Your task to perform on an android device: Go to privacy settings Image 0: 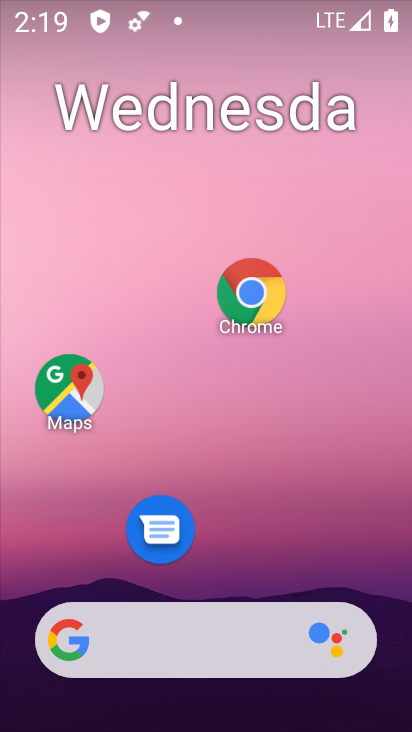
Step 0: drag from (272, 543) to (299, 285)
Your task to perform on an android device: Go to privacy settings Image 1: 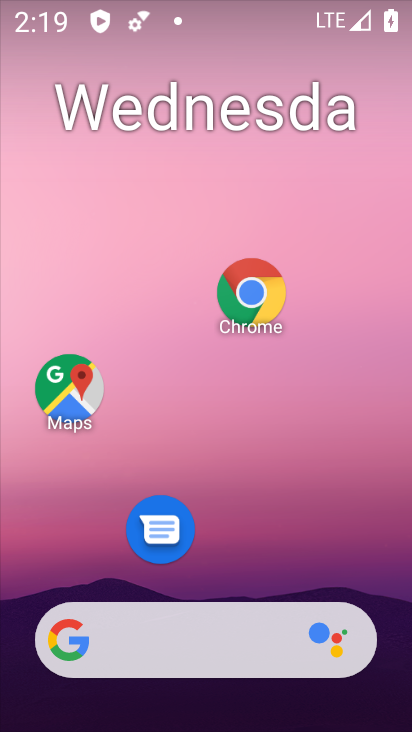
Step 1: drag from (191, 548) to (188, 327)
Your task to perform on an android device: Go to privacy settings Image 2: 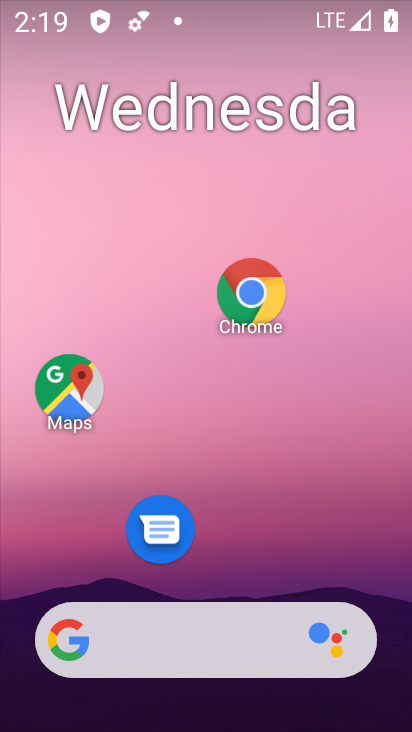
Step 2: drag from (230, 532) to (247, 332)
Your task to perform on an android device: Go to privacy settings Image 3: 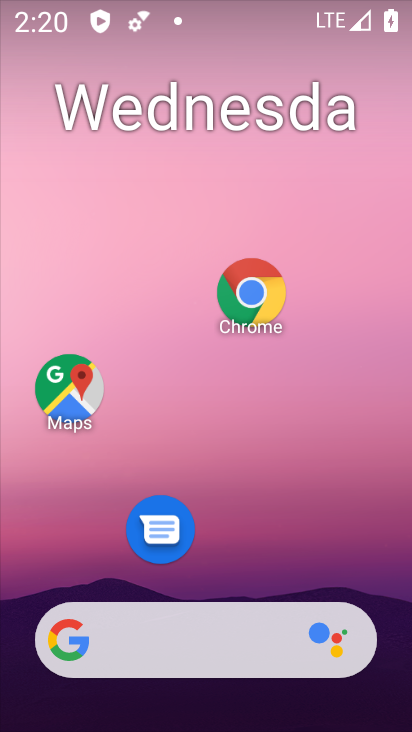
Step 3: drag from (297, 615) to (315, 335)
Your task to perform on an android device: Go to privacy settings Image 4: 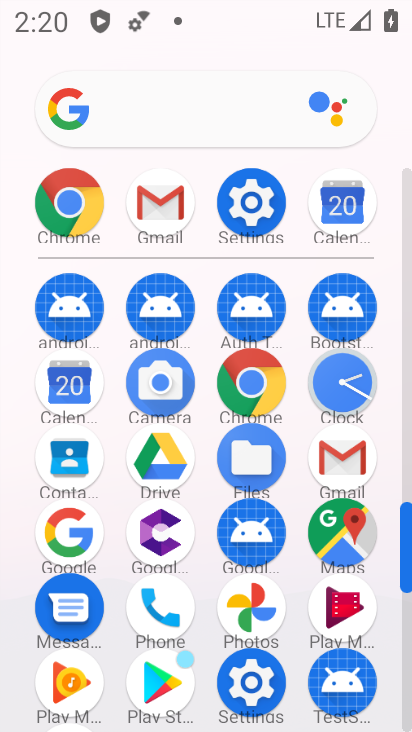
Step 4: click (273, 225)
Your task to perform on an android device: Go to privacy settings Image 5: 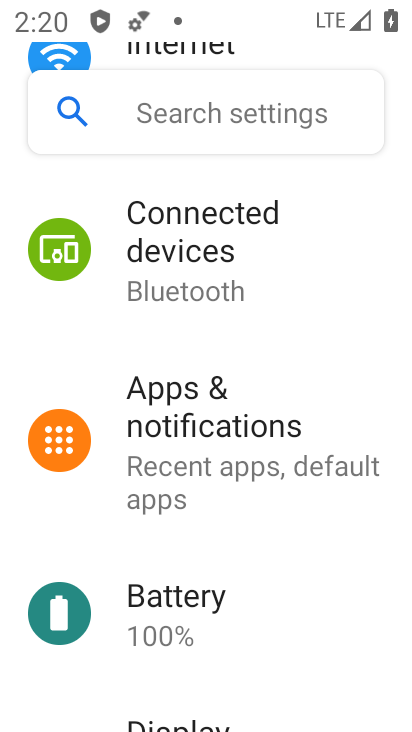
Step 5: drag from (204, 483) to (198, 285)
Your task to perform on an android device: Go to privacy settings Image 6: 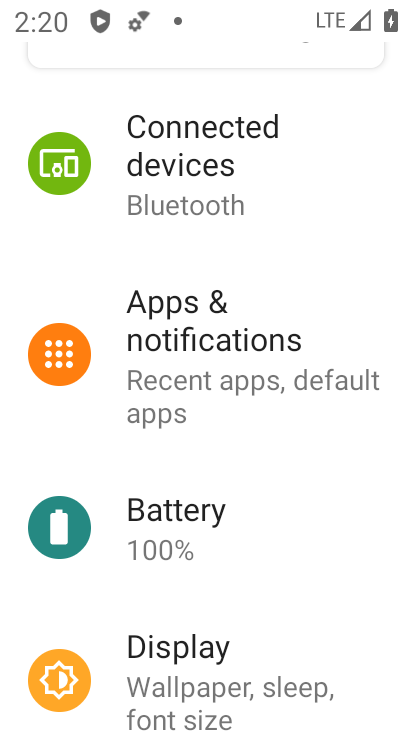
Step 6: drag from (197, 431) to (199, 334)
Your task to perform on an android device: Go to privacy settings Image 7: 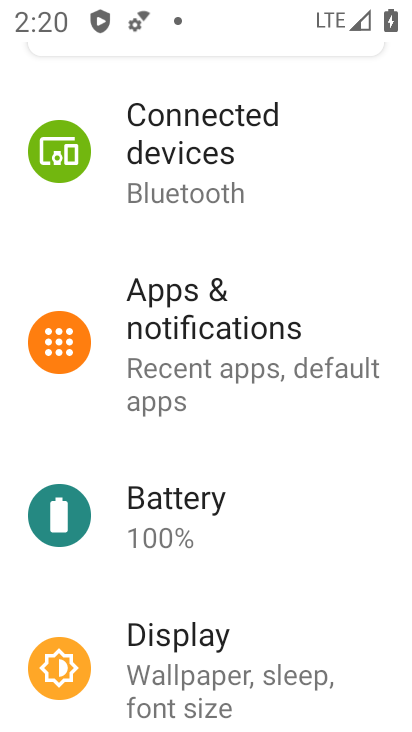
Step 7: drag from (189, 567) to (214, 229)
Your task to perform on an android device: Go to privacy settings Image 8: 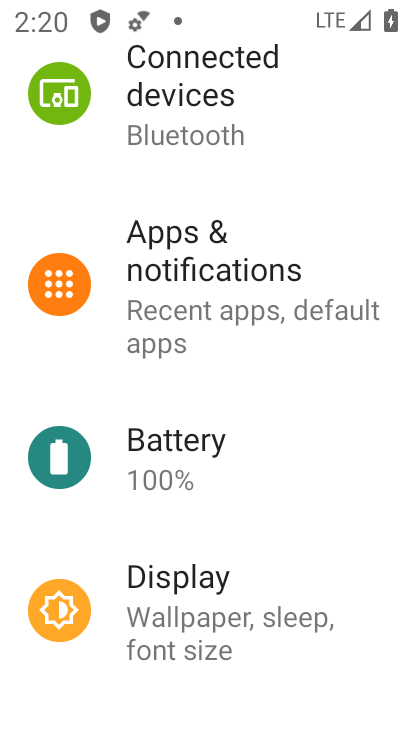
Step 8: drag from (198, 505) to (263, 97)
Your task to perform on an android device: Go to privacy settings Image 9: 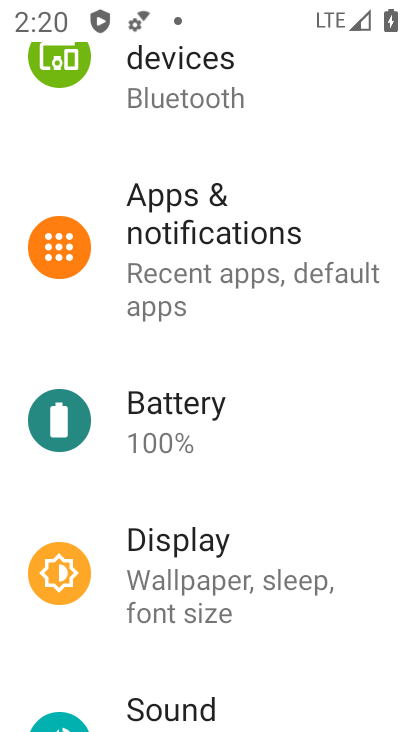
Step 9: drag from (177, 594) to (212, 216)
Your task to perform on an android device: Go to privacy settings Image 10: 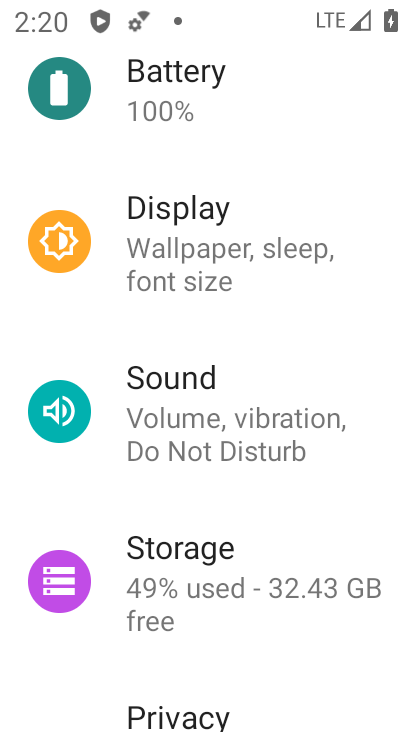
Step 10: drag from (192, 494) to (239, 4)
Your task to perform on an android device: Go to privacy settings Image 11: 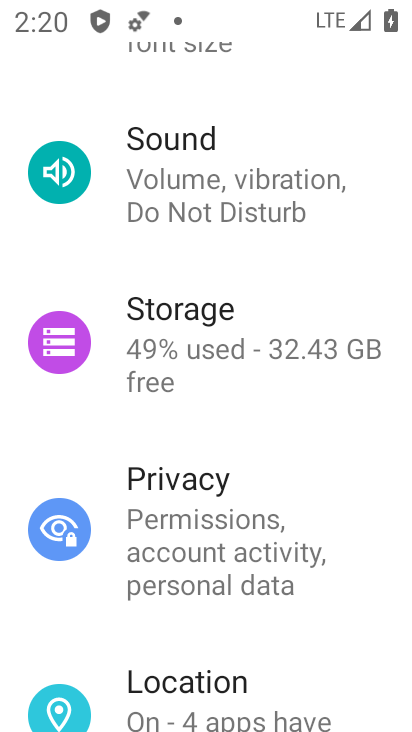
Step 11: click (226, 472)
Your task to perform on an android device: Go to privacy settings Image 12: 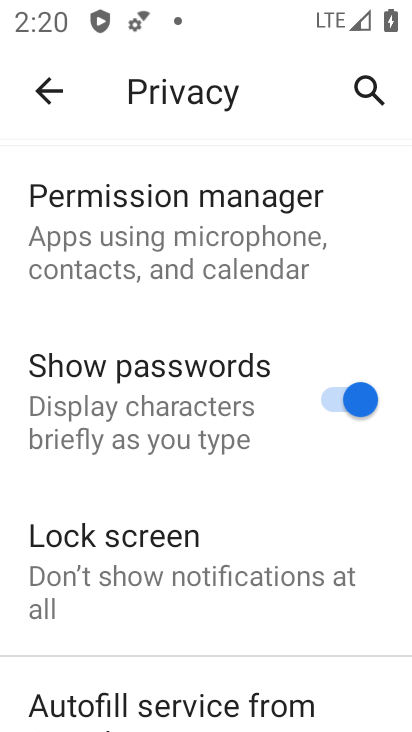
Step 12: task complete